Your task to perform on an android device: uninstall "Facebook Messenger" Image 0: 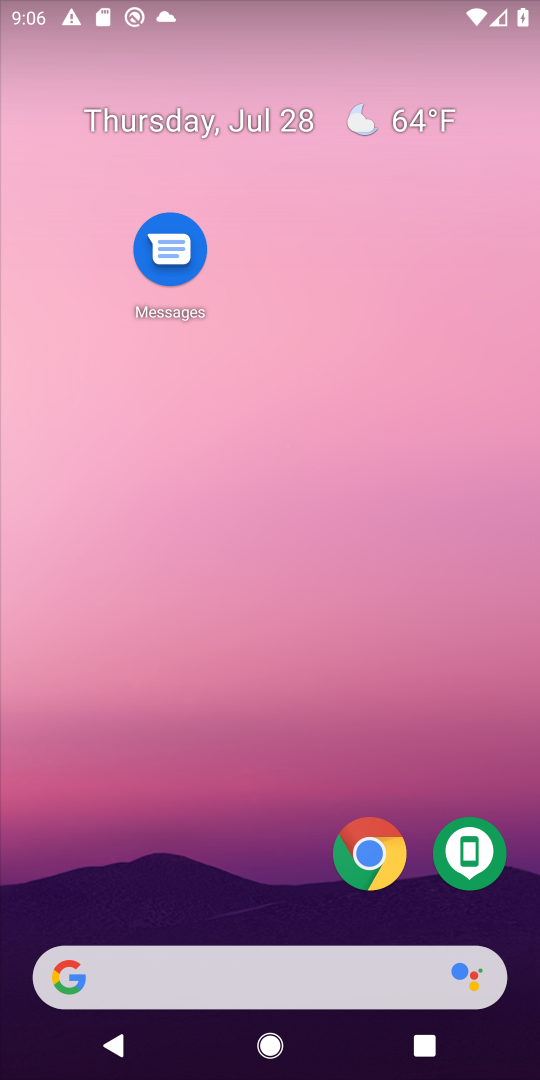
Step 0: drag from (266, 682) to (420, 80)
Your task to perform on an android device: uninstall "Facebook Messenger" Image 1: 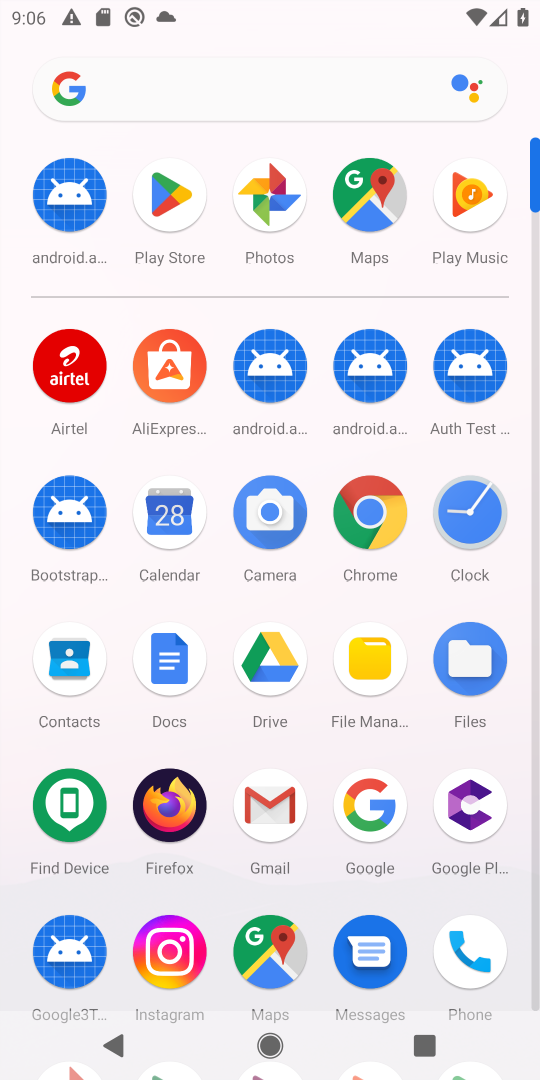
Step 1: click (174, 206)
Your task to perform on an android device: uninstall "Facebook Messenger" Image 2: 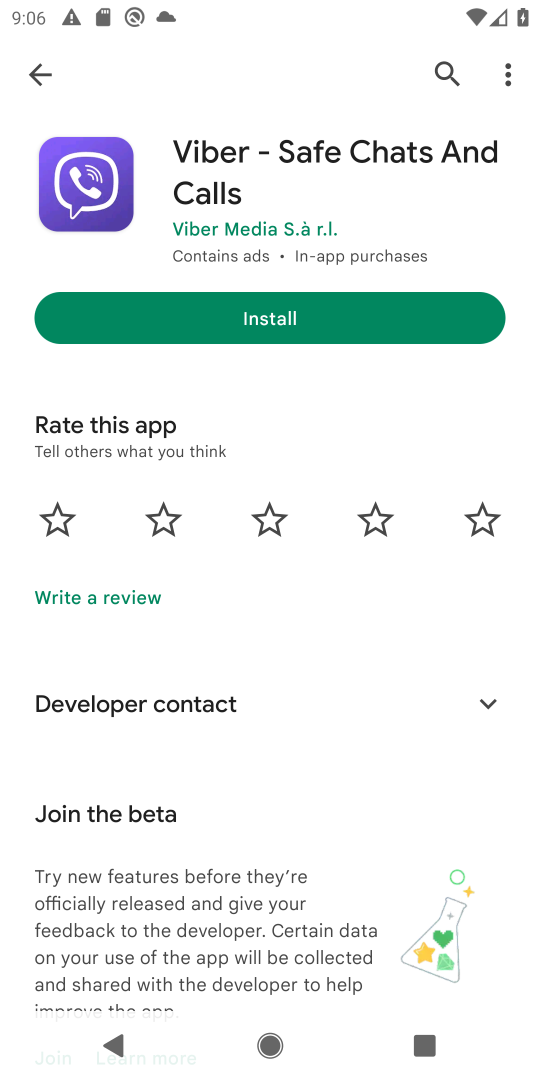
Step 2: click (46, 71)
Your task to perform on an android device: uninstall "Facebook Messenger" Image 3: 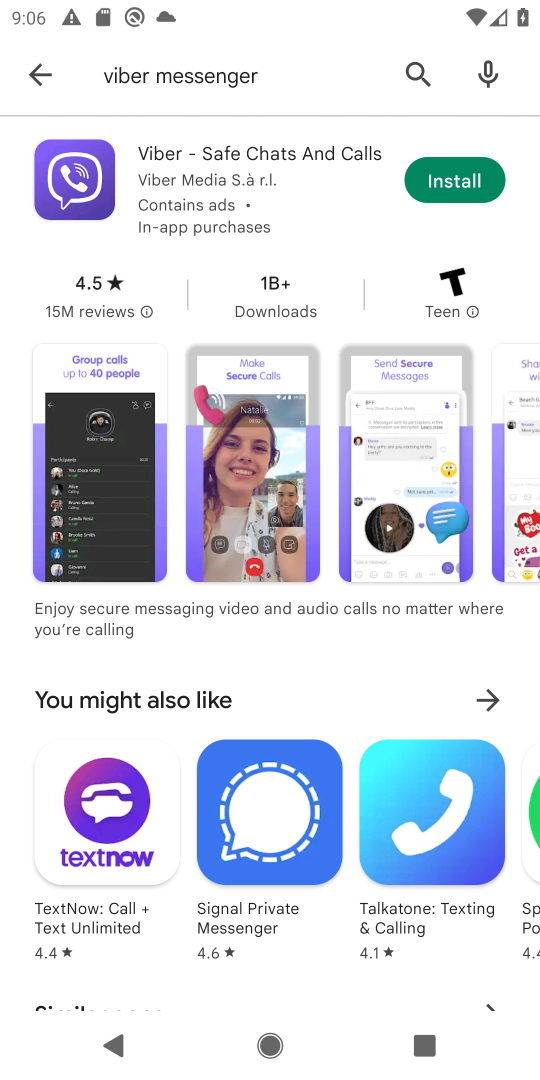
Step 3: click (35, 73)
Your task to perform on an android device: uninstall "Facebook Messenger" Image 4: 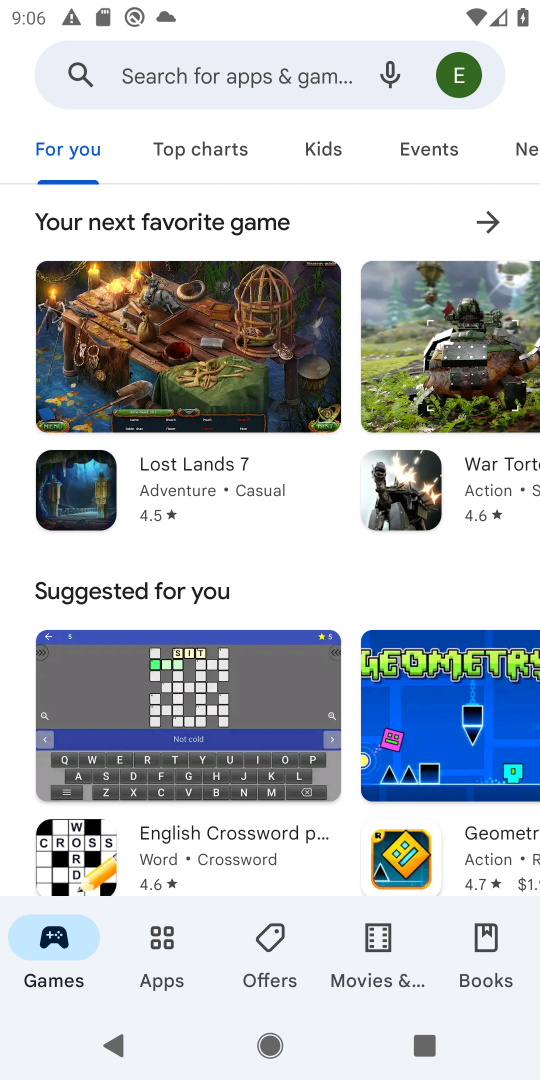
Step 4: click (157, 73)
Your task to perform on an android device: uninstall "Facebook Messenger" Image 5: 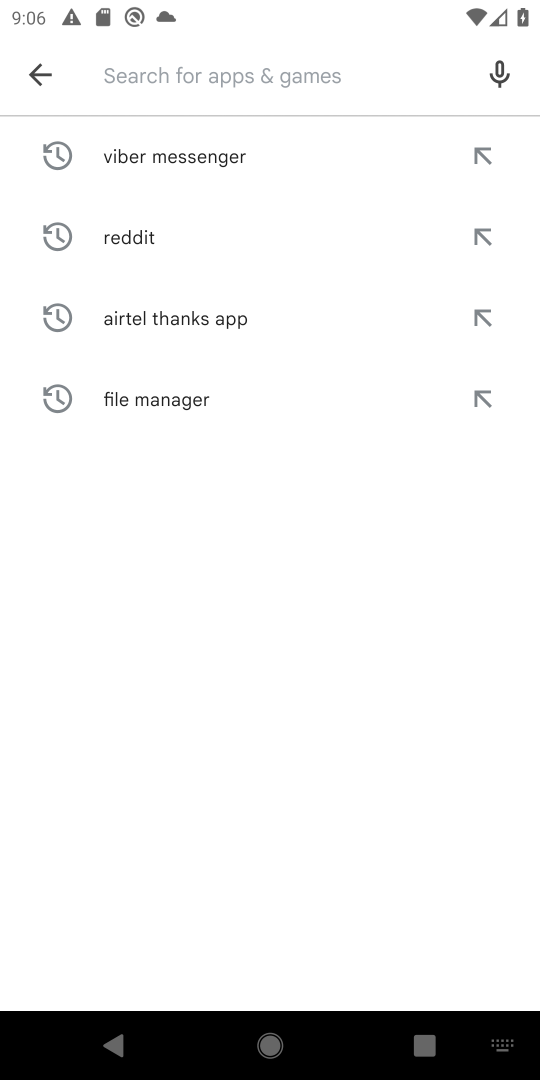
Step 5: type "Facebook Messenger"
Your task to perform on an android device: uninstall "Facebook Messenger" Image 6: 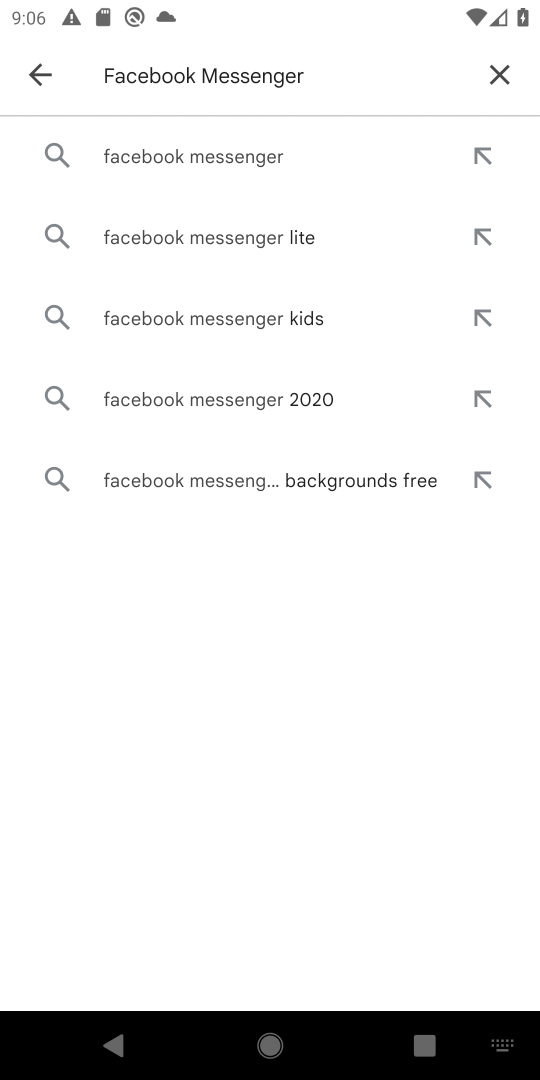
Step 6: click (250, 143)
Your task to perform on an android device: uninstall "Facebook Messenger" Image 7: 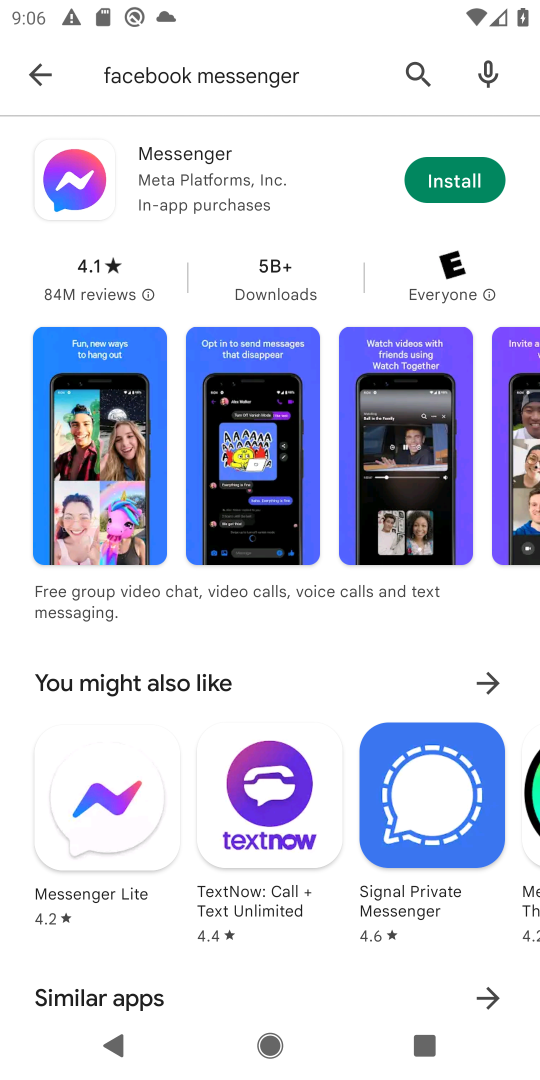
Step 7: click (53, 167)
Your task to perform on an android device: uninstall "Facebook Messenger" Image 8: 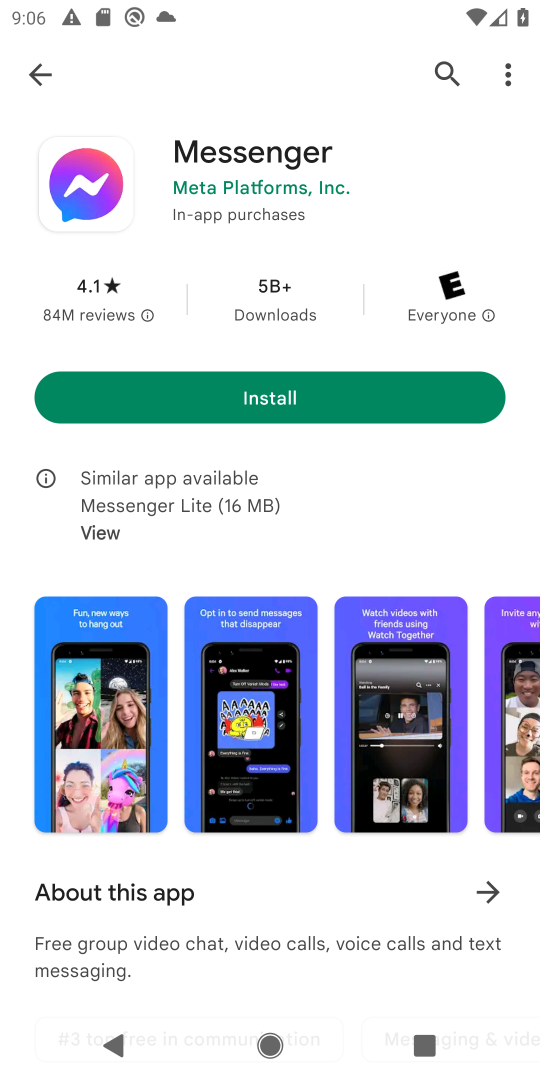
Step 8: task complete